Your task to perform on an android device: Go to display settings Image 0: 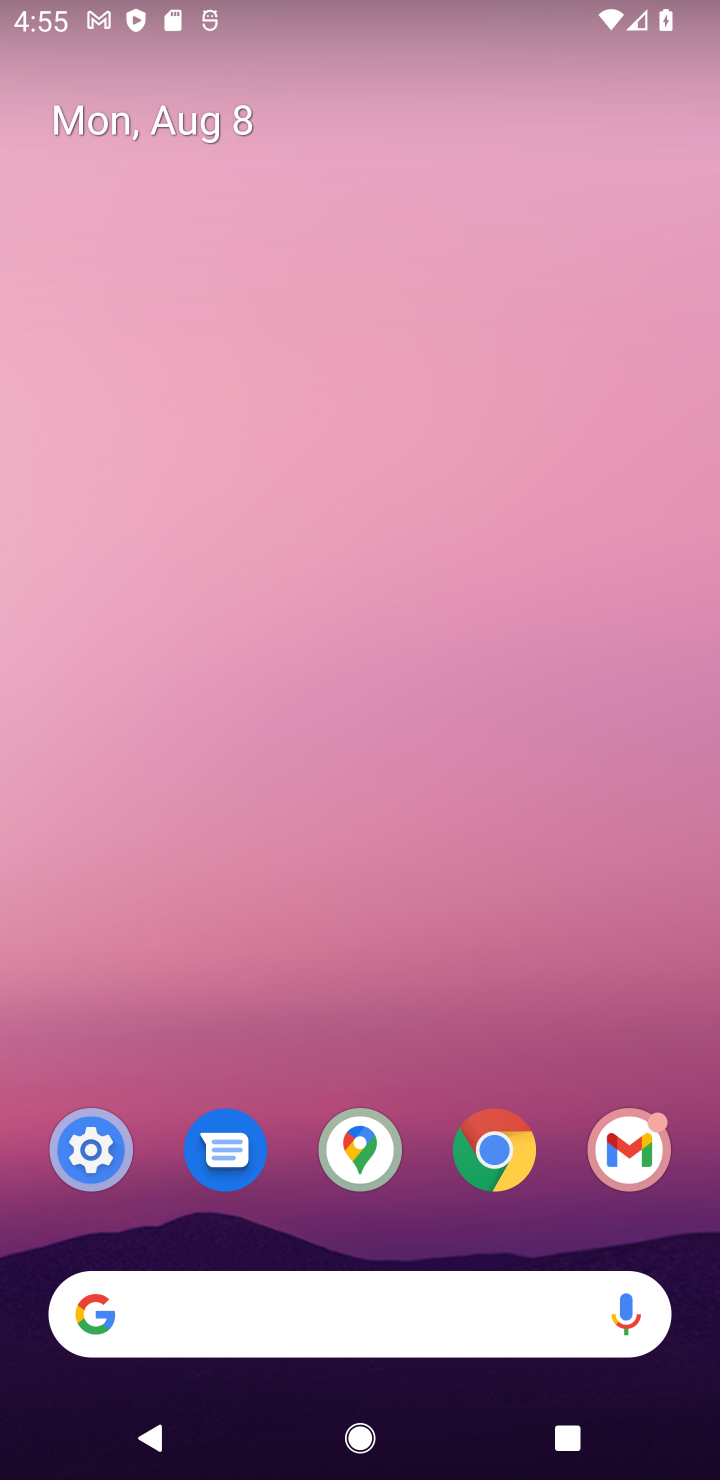
Step 0: click (129, 1134)
Your task to perform on an android device: Go to display settings Image 1: 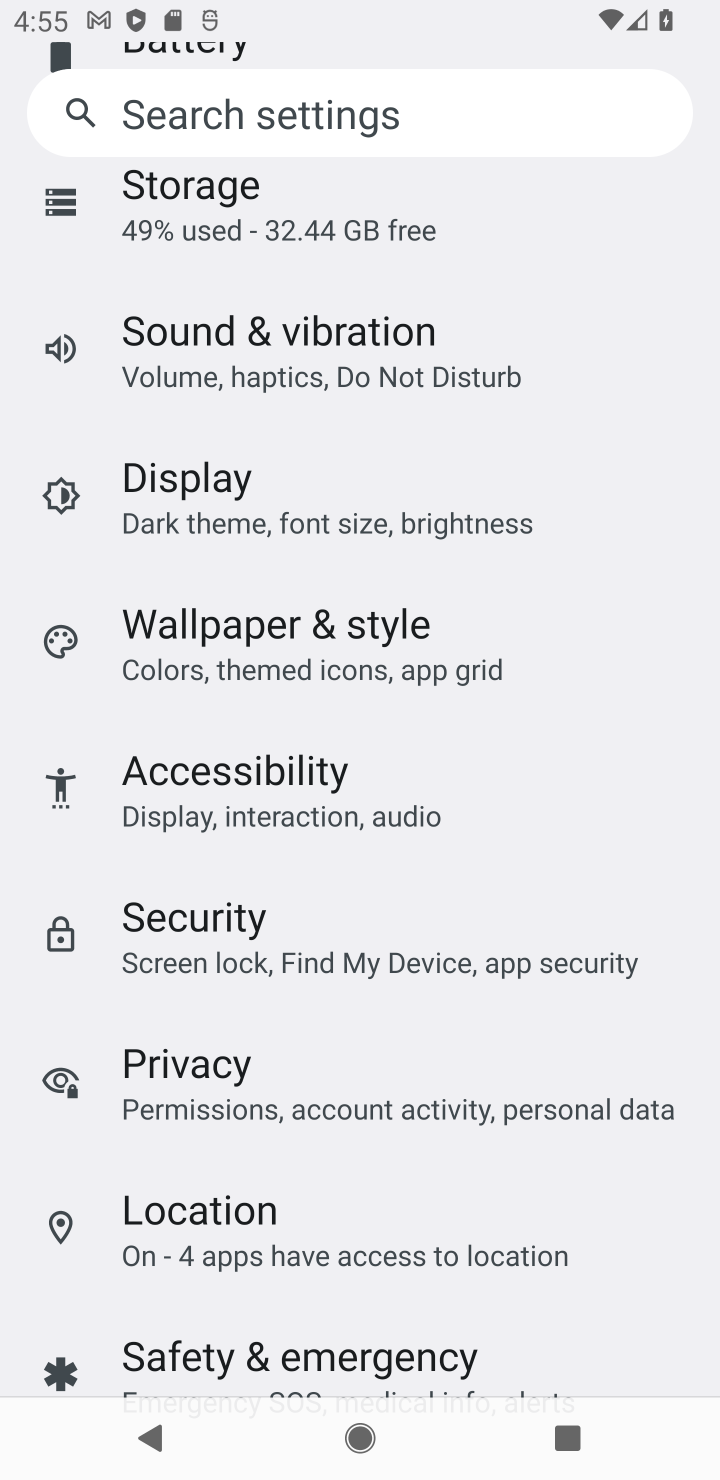
Step 1: click (305, 514)
Your task to perform on an android device: Go to display settings Image 2: 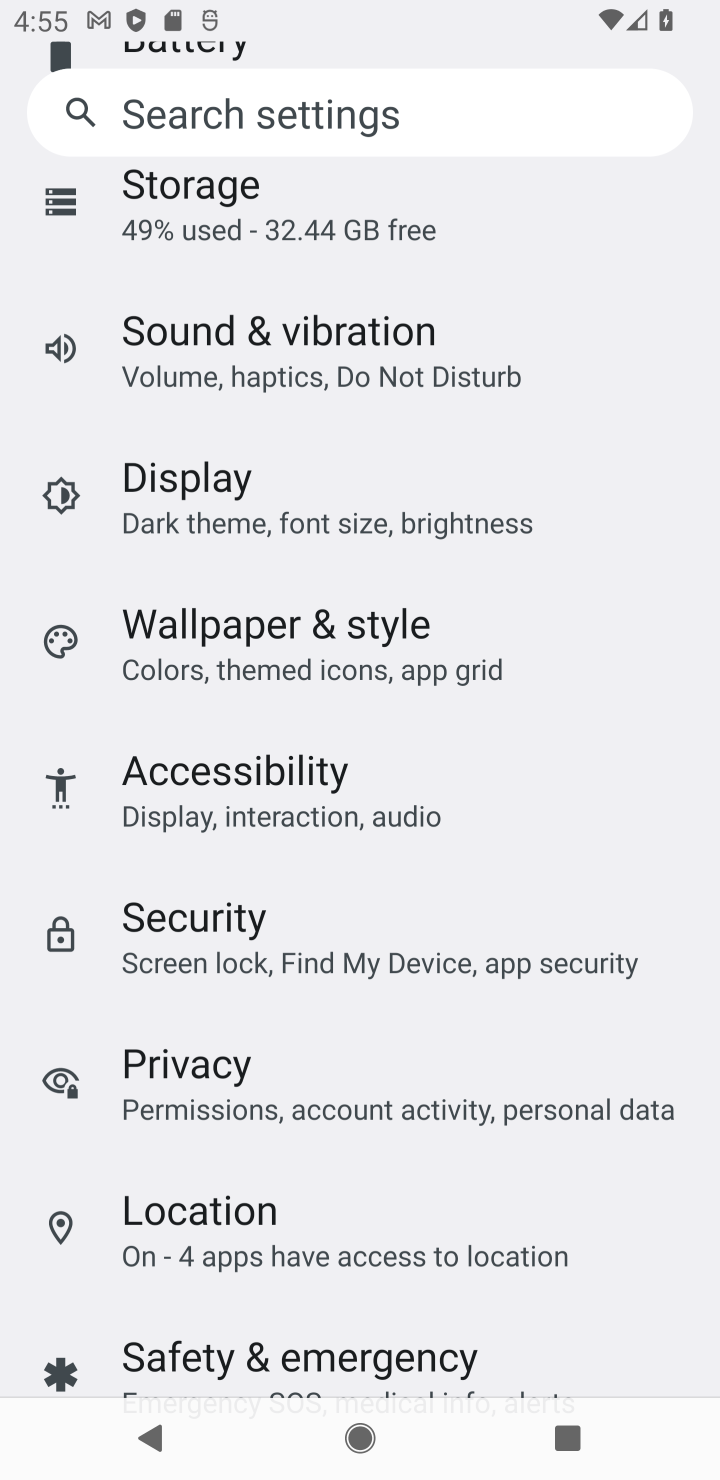
Step 2: task complete